Your task to perform on an android device: visit the assistant section in the google photos Image 0: 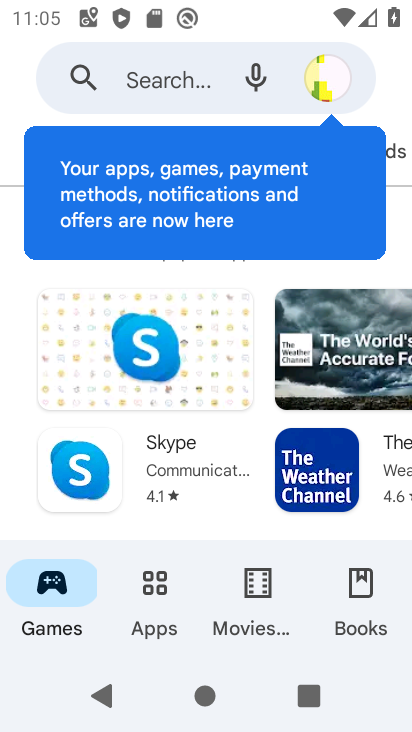
Step 0: press home button
Your task to perform on an android device: visit the assistant section in the google photos Image 1: 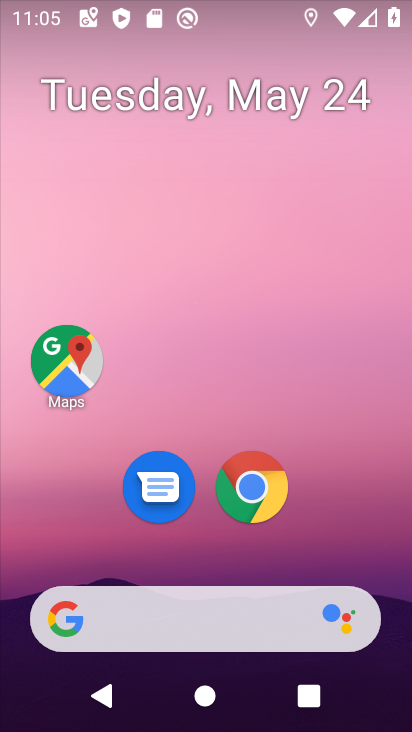
Step 1: drag from (196, 561) to (255, 111)
Your task to perform on an android device: visit the assistant section in the google photos Image 2: 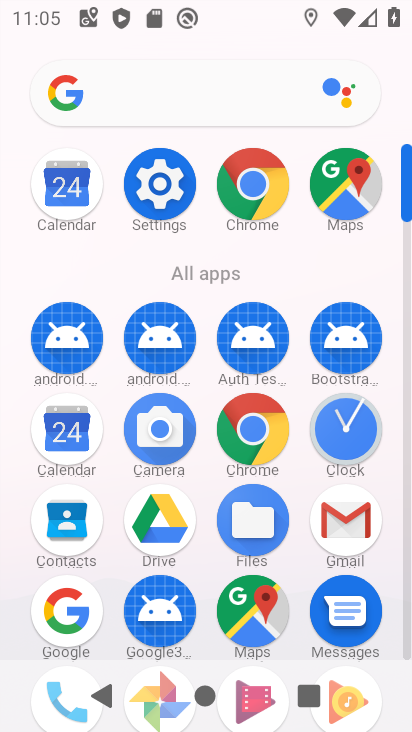
Step 2: drag from (173, 625) to (263, 196)
Your task to perform on an android device: visit the assistant section in the google photos Image 3: 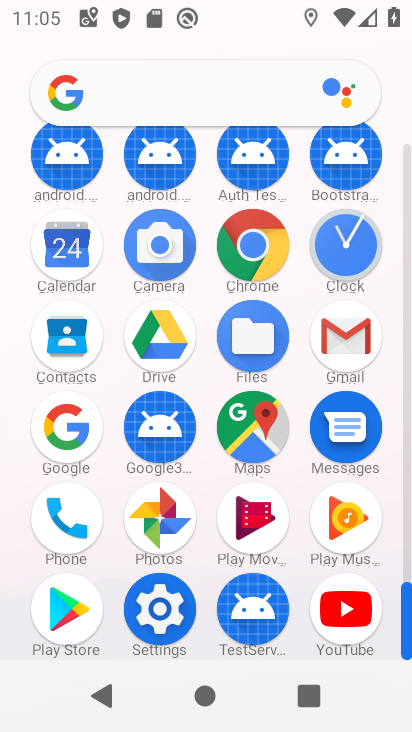
Step 3: click (155, 523)
Your task to perform on an android device: visit the assistant section in the google photos Image 4: 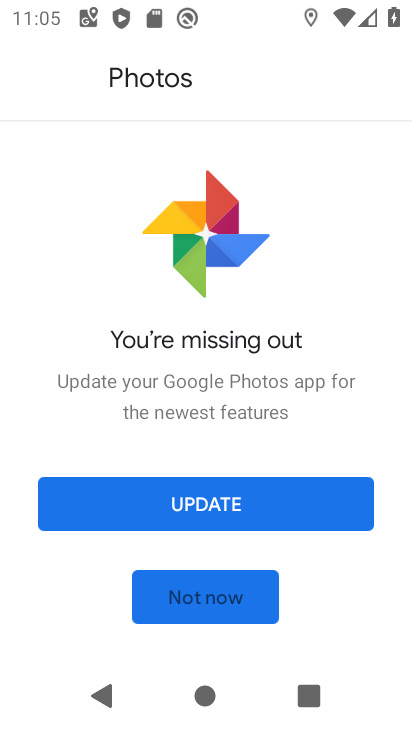
Step 4: click (179, 587)
Your task to perform on an android device: visit the assistant section in the google photos Image 5: 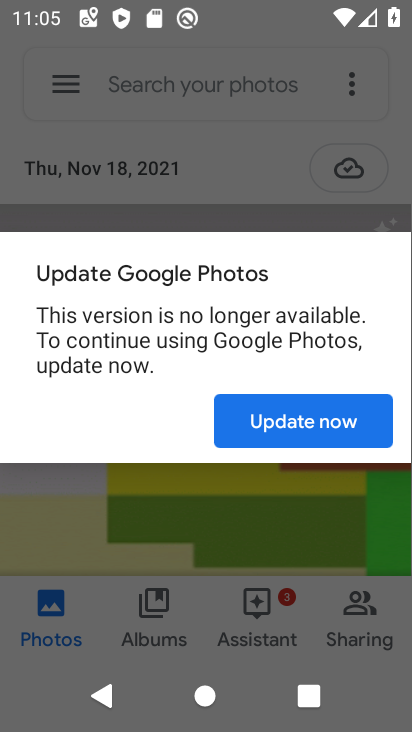
Step 5: click (261, 618)
Your task to perform on an android device: visit the assistant section in the google photos Image 6: 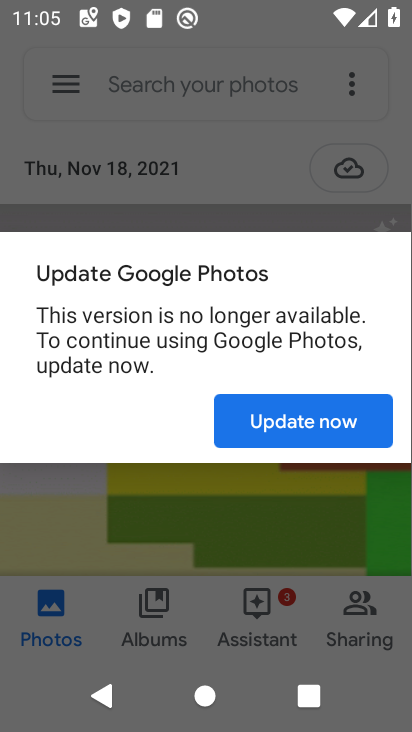
Step 6: click (296, 421)
Your task to perform on an android device: visit the assistant section in the google photos Image 7: 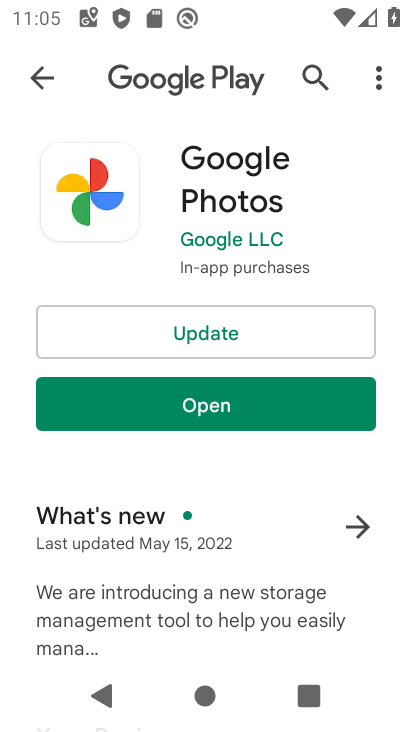
Step 7: click (204, 395)
Your task to perform on an android device: visit the assistant section in the google photos Image 8: 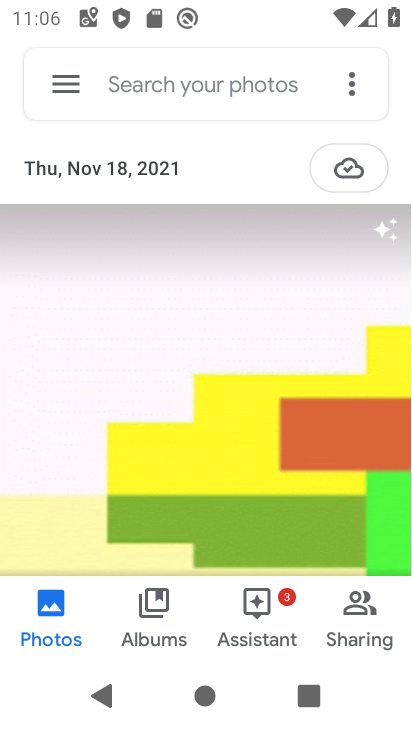
Step 8: click (257, 603)
Your task to perform on an android device: visit the assistant section in the google photos Image 9: 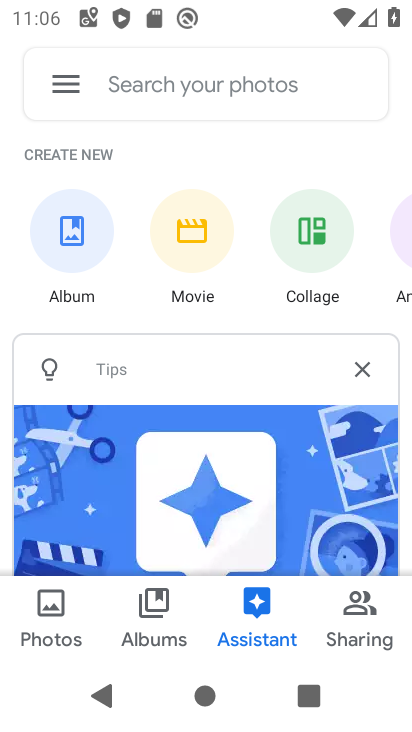
Step 9: task complete